Your task to perform on an android device: allow notifications from all sites in the chrome app Image 0: 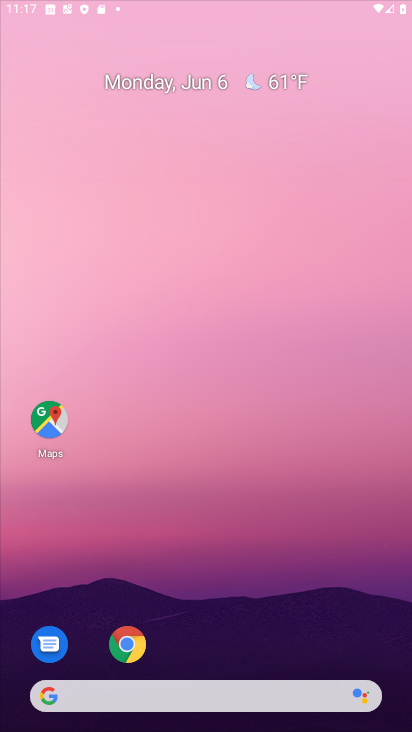
Step 0: press home button
Your task to perform on an android device: allow notifications from all sites in the chrome app Image 1: 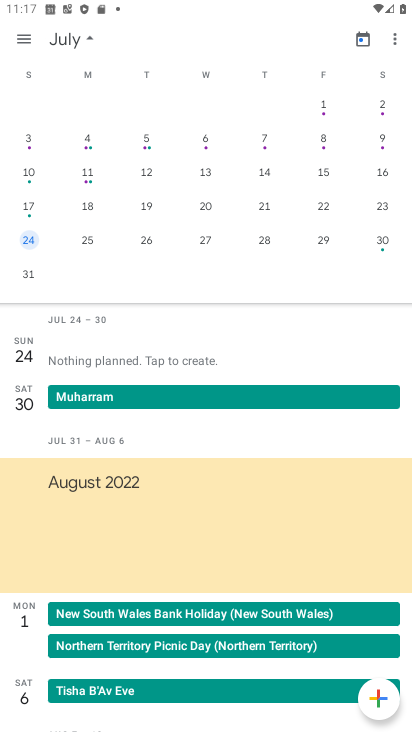
Step 1: drag from (173, 666) to (229, 99)
Your task to perform on an android device: allow notifications from all sites in the chrome app Image 2: 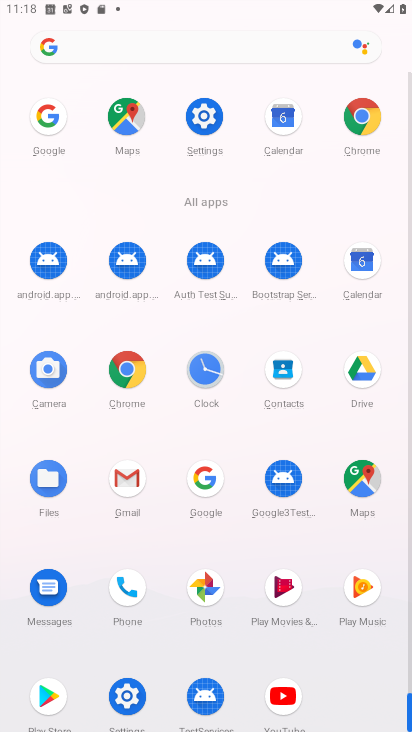
Step 2: click (125, 372)
Your task to perform on an android device: allow notifications from all sites in the chrome app Image 3: 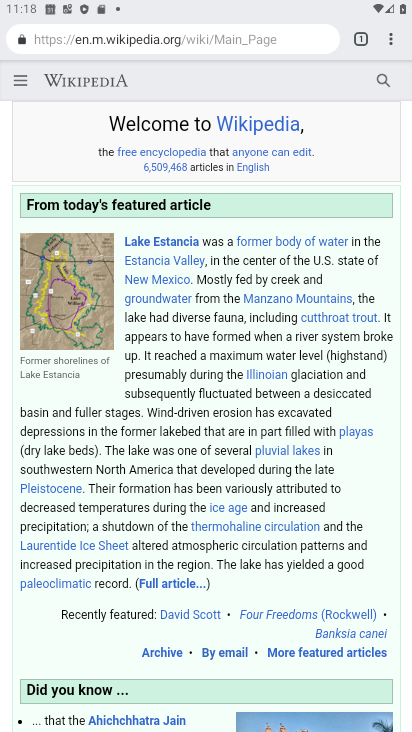
Step 3: click (408, 39)
Your task to perform on an android device: allow notifications from all sites in the chrome app Image 4: 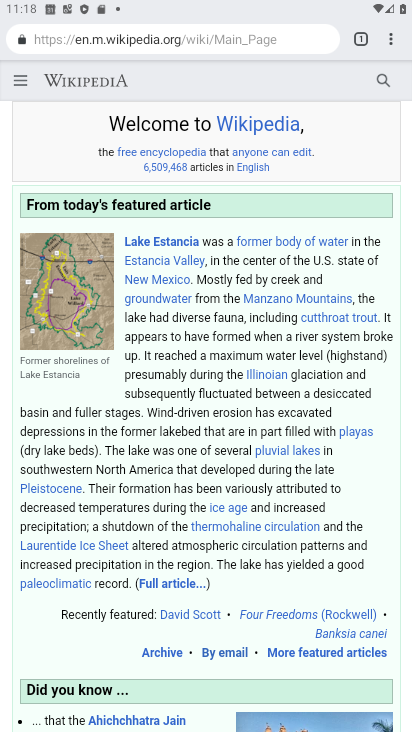
Step 4: click (397, 41)
Your task to perform on an android device: allow notifications from all sites in the chrome app Image 5: 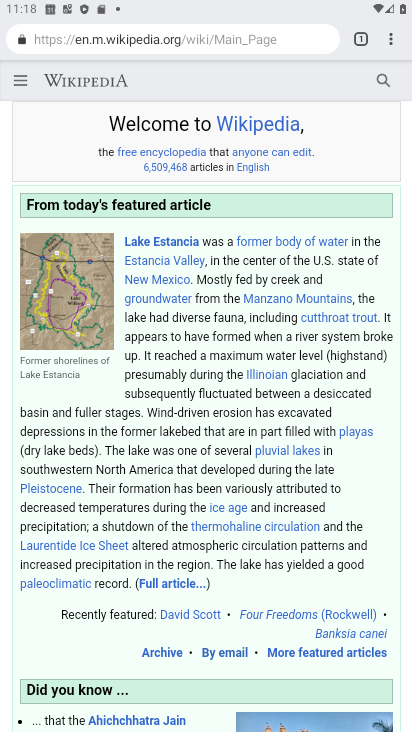
Step 5: click (397, 41)
Your task to perform on an android device: allow notifications from all sites in the chrome app Image 6: 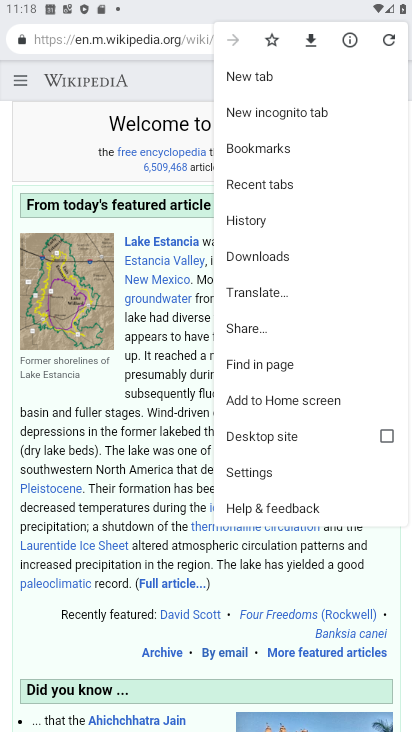
Step 6: click (281, 472)
Your task to perform on an android device: allow notifications from all sites in the chrome app Image 7: 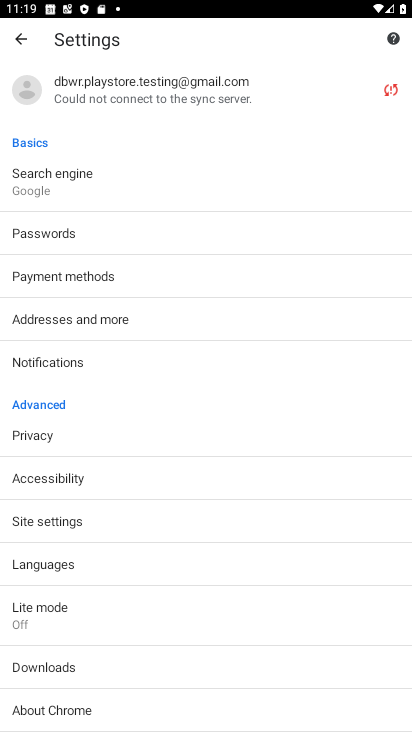
Step 7: click (108, 364)
Your task to perform on an android device: allow notifications from all sites in the chrome app Image 8: 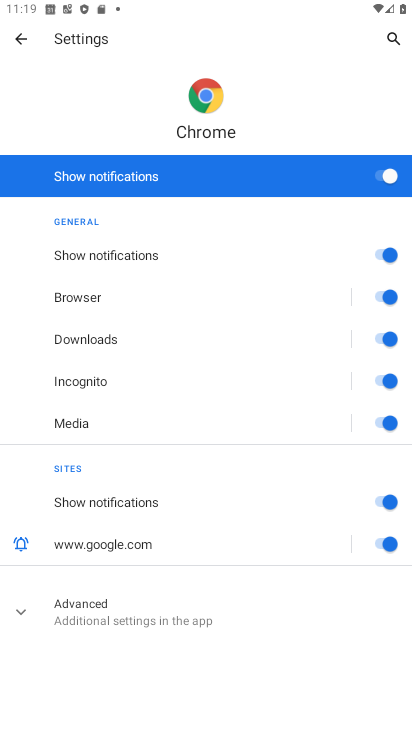
Step 8: task complete